Your task to perform on an android device: Open internet settings Image 0: 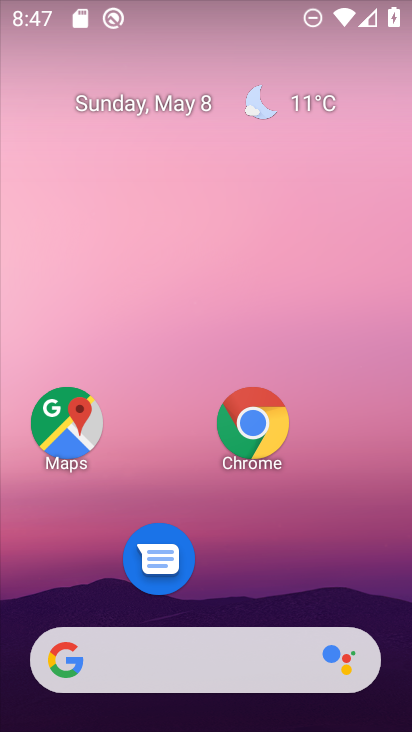
Step 0: drag from (338, 591) to (331, 5)
Your task to perform on an android device: Open internet settings Image 1: 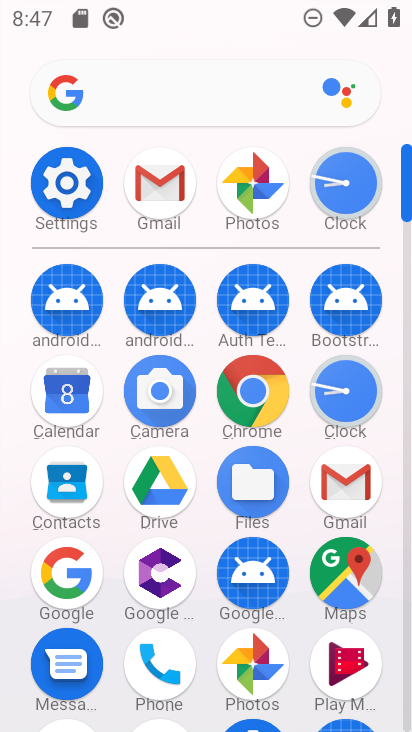
Step 1: click (68, 174)
Your task to perform on an android device: Open internet settings Image 2: 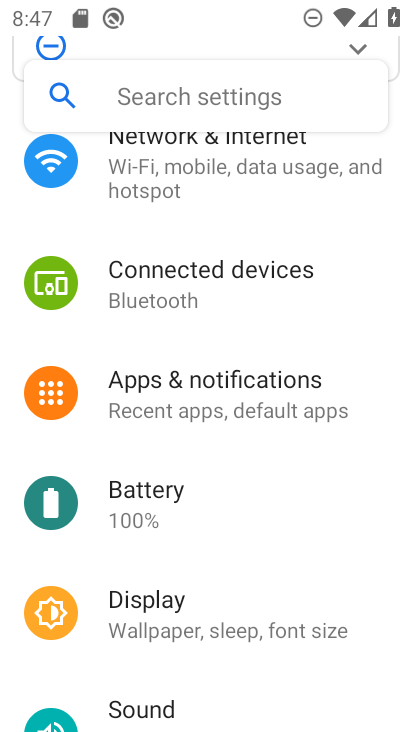
Step 2: click (213, 166)
Your task to perform on an android device: Open internet settings Image 3: 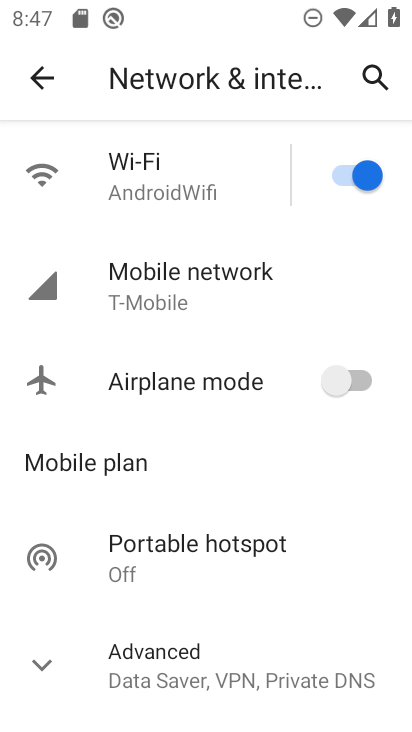
Step 3: task complete